Your task to perform on an android device: check battery use Image 0: 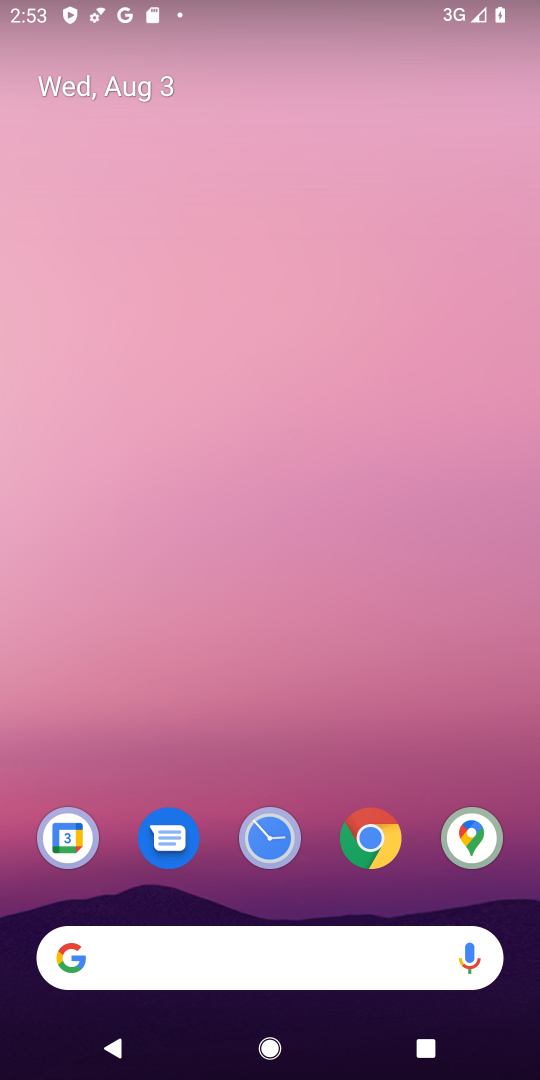
Step 0: drag from (285, 770) to (258, 61)
Your task to perform on an android device: check battery use Image 1: 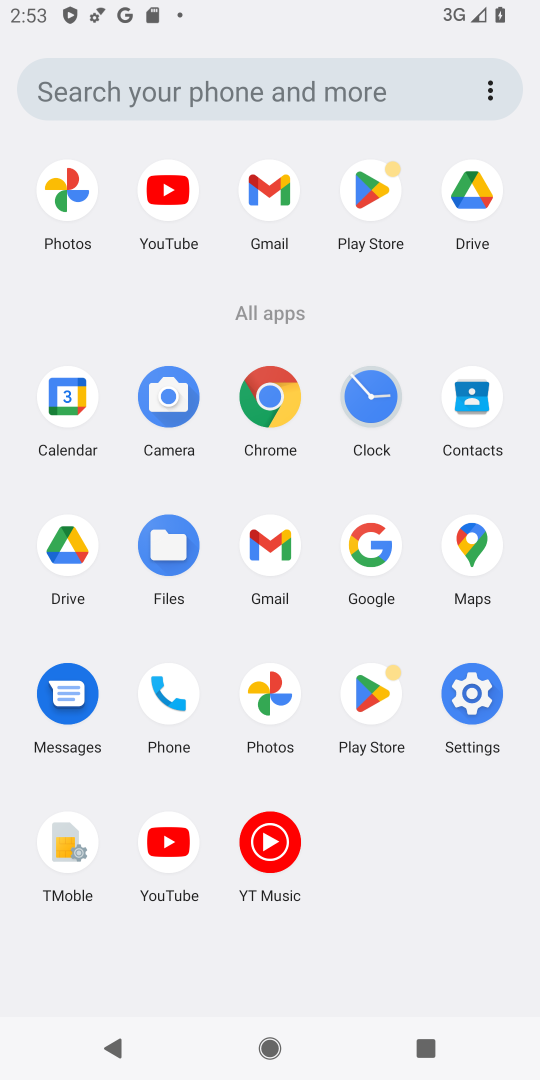
Step 1: click (462, 680)
Your task to perform on an android device: check battery use Image 2: 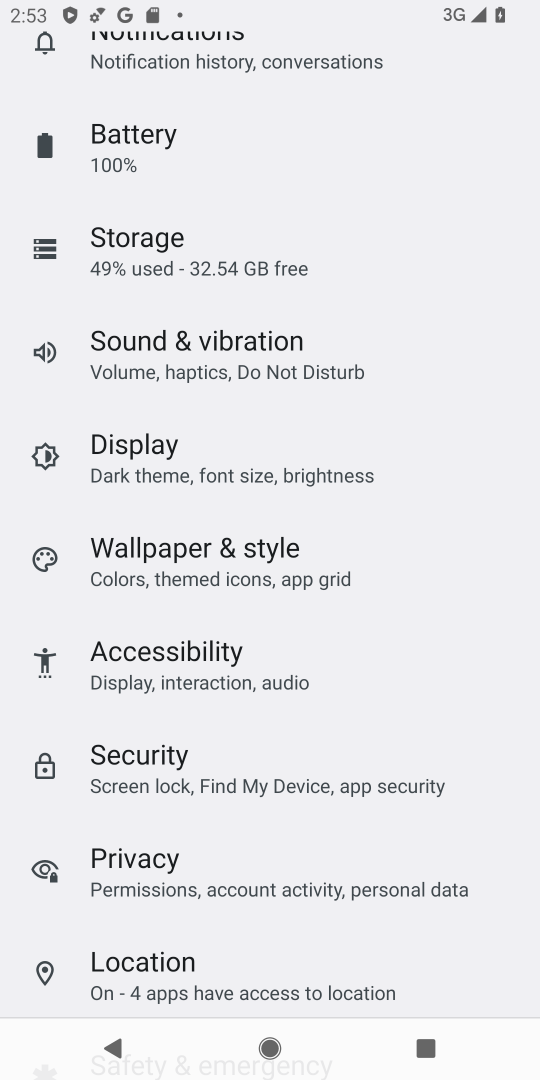
Step 2: click (218, 156)
Your task to perform on an android device: check battery use Image 3: 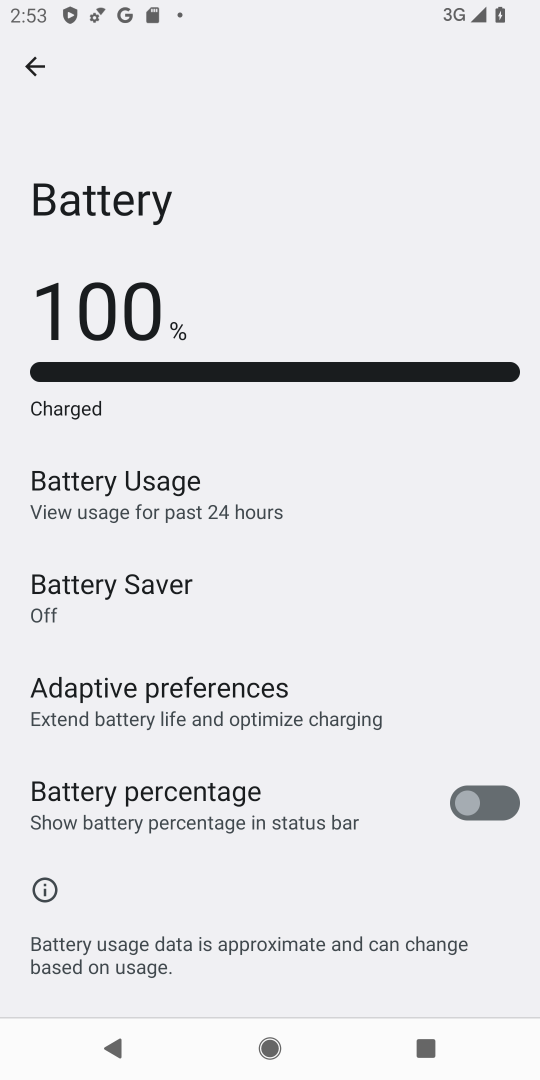
Step 3: click (160, 479)
Your task to perform on an android device: check battery use Image 4: 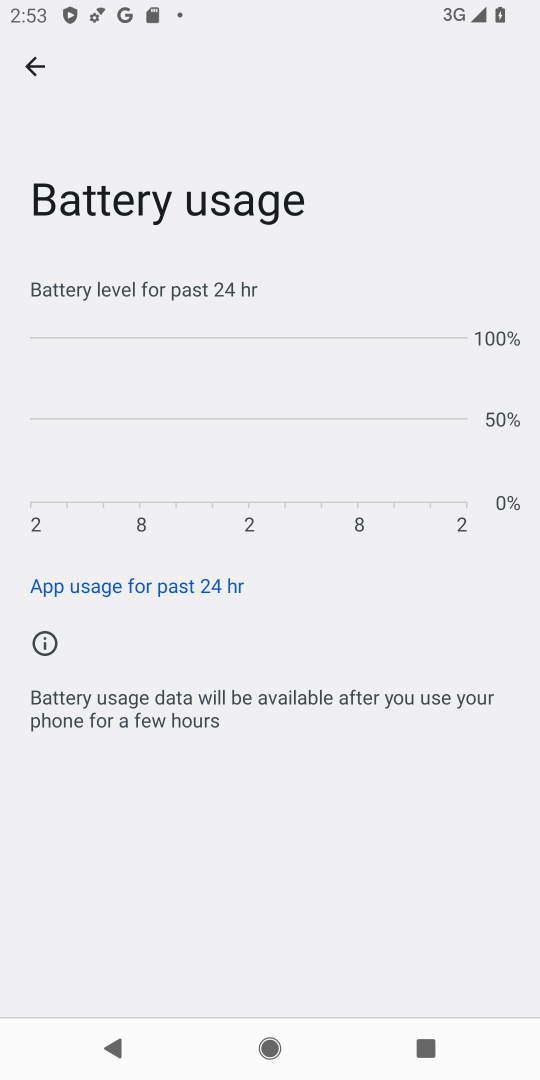
Step 4: task complete